Your task to perform on an android device: Find coffee shops on Maps Image 0: 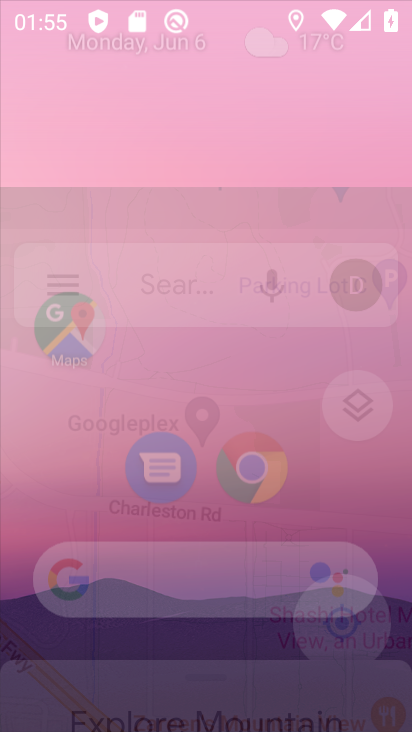
Step 0: drag from (273, 332) to (262, 204)
Your task to perform on an android device: Find coffee shops on Maps Image 1: 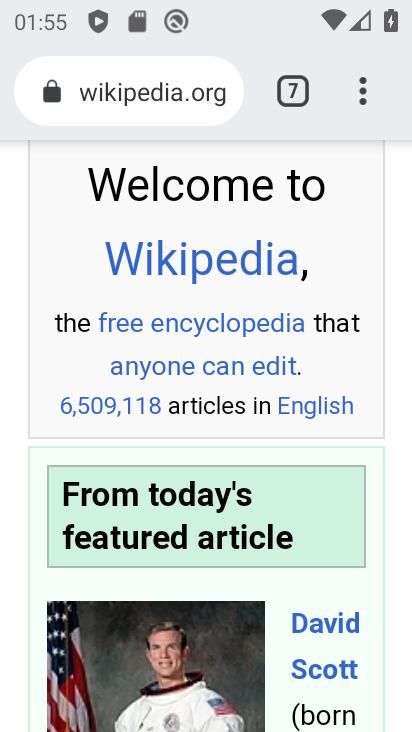
Step 1: press home button
Your task to perform on an android device: Find coffee shops on Maps Image 2: 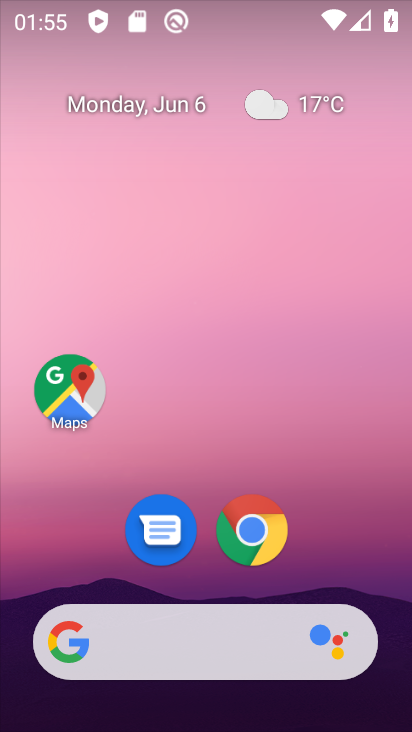
Step 2: click (63, 373)
Your task to perform on an android device: Find coffee shops on Maps Image 3: 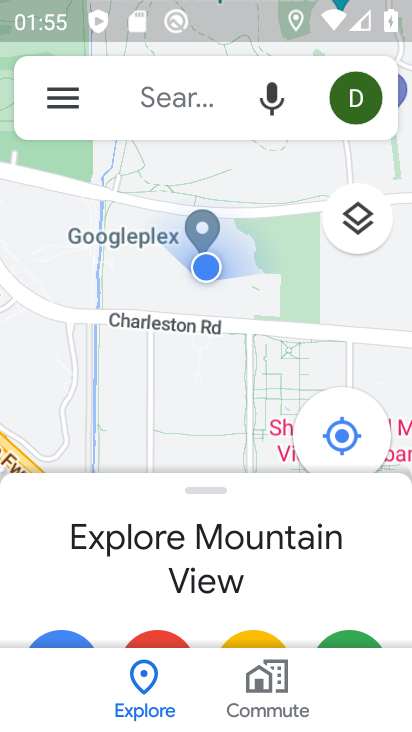
Step 3: click (172, 78)
Your task to perform on an android device: Find coffee shops on Maps Image 4: 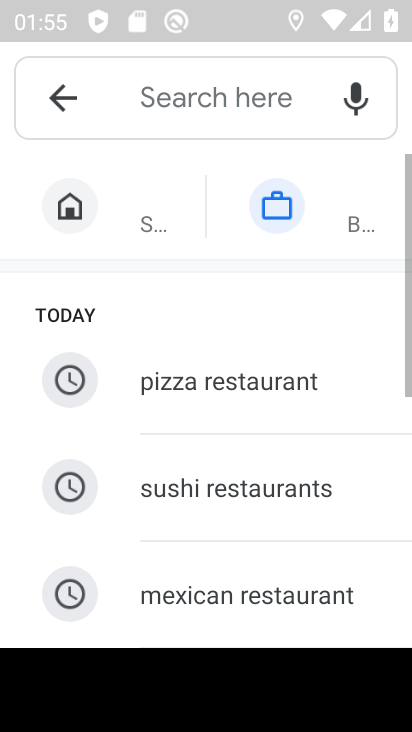
Step 4: drag from (233, 603) to (235, 265)
Your task to perform on an android device: Find coffee shops on Maps Image 5: 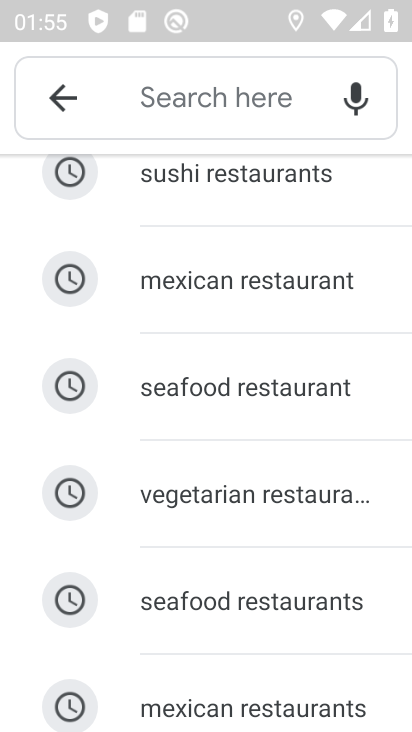
Step 5: drag from (231, 621) to (249, 275)
Your task to perform on an android device: Find coffee shops on Maps Image 6: 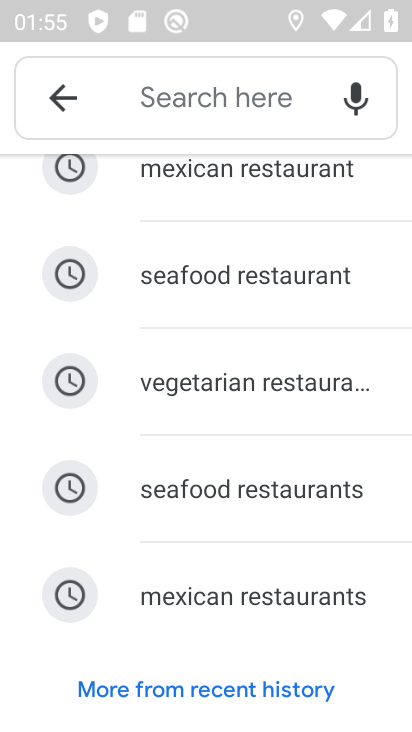
Step 6: click (159, 94)
Your task to perform on an android device: Find coffee shops on Maps Image 7: 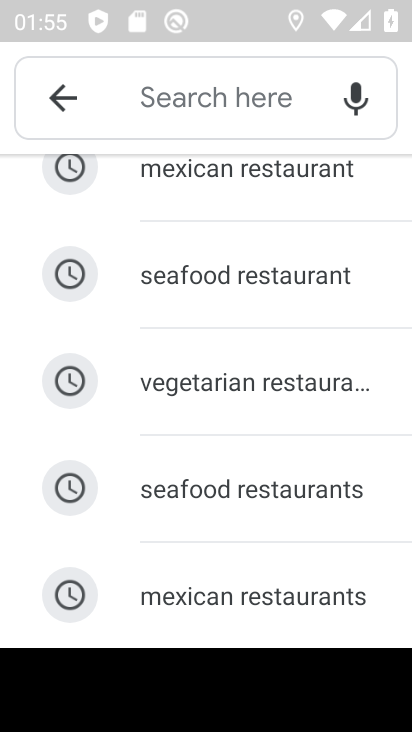
Step 7: type " coffee shops"
Your task to perform on an android device: Find coffee shops on Maps Image 8: 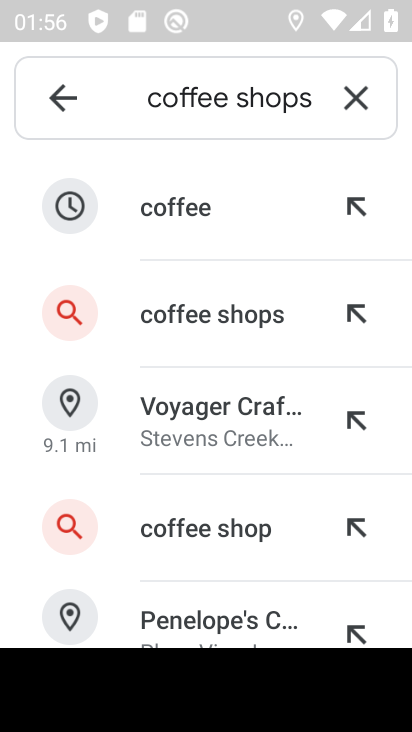
Step 8: click (154, 204)
Your task to perform on an android device: Find coffee shops on Maps Image 9: 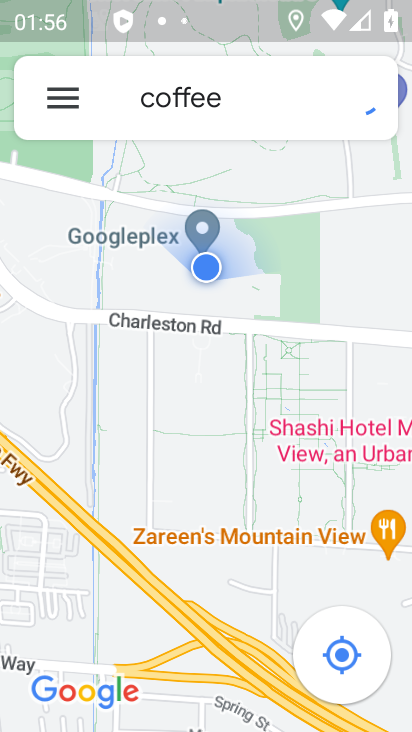
Step 9: task complete